Your task to perform on an android device: Go to calendar. Show me events next week Image 0: 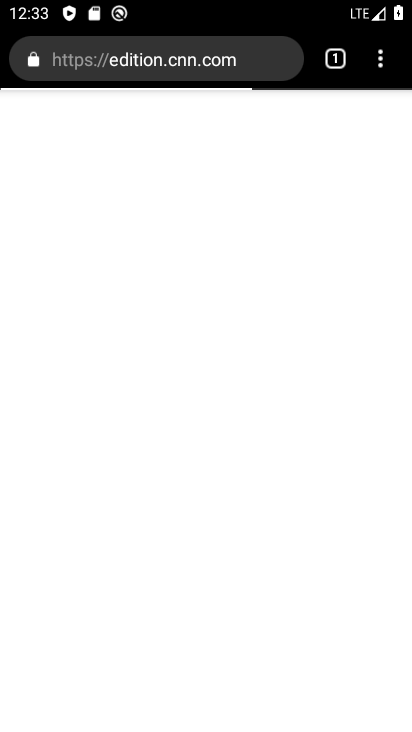
Step 0: press home button
Your task to perform on an android device: Go to calendar. Show me events next week Image 1: 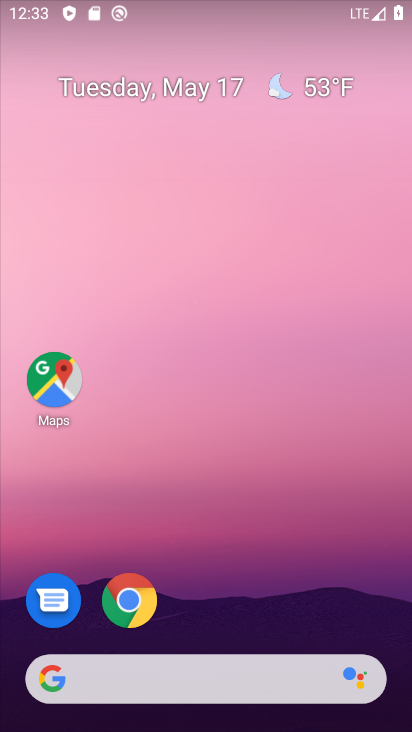
Step 1: drag from (229, 620) to (28, 70)
Your task to perform on an android device: Go to calendar. Show me events next week Image 2: 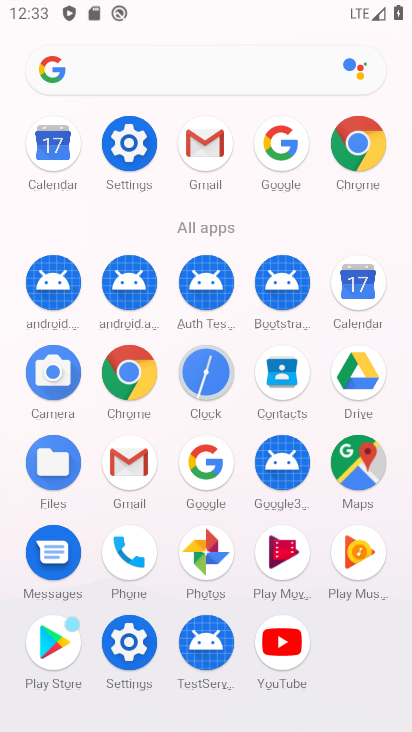
Step 2: click (343, 297)
Your task to perform on an android device: Go to calendar. Show me events next week Image 3: 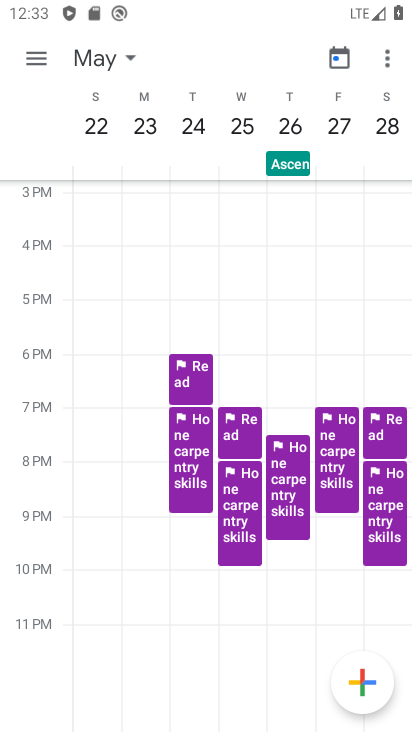
Step 3: task complete